Your task to perform on an android device: turn notification dots on Image 0: 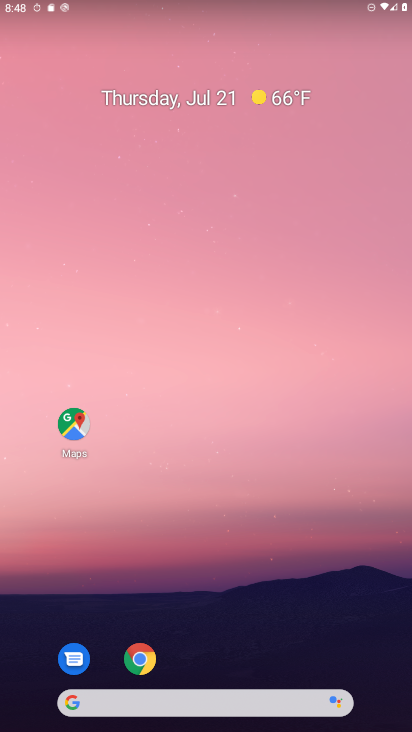
Step 0: drag from (188, 652) to (254, 170)
Your task to perform on an android device: turn notification dots on Image 1: 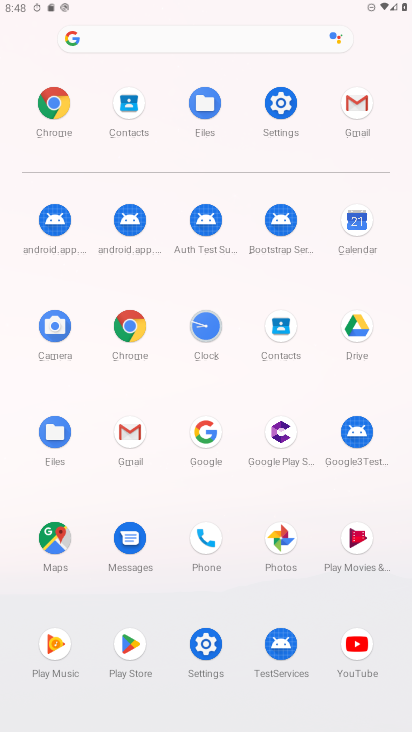
Step 1: click (279, 117)
Your task to perform on an android device: turn notification dots on Image 2: 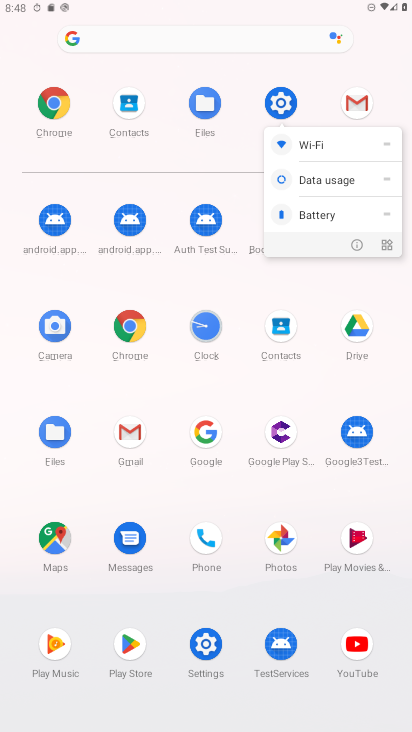
Step 2: click (355, 246)
Your task to perform on an android device: turn notification dots on Image 3: 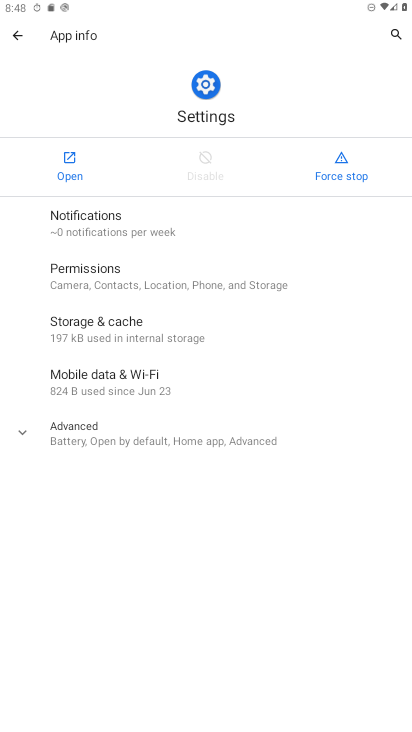
Step 3: click (65, 158)
Your task to perform on an android device: turn notification dots on Image 4: 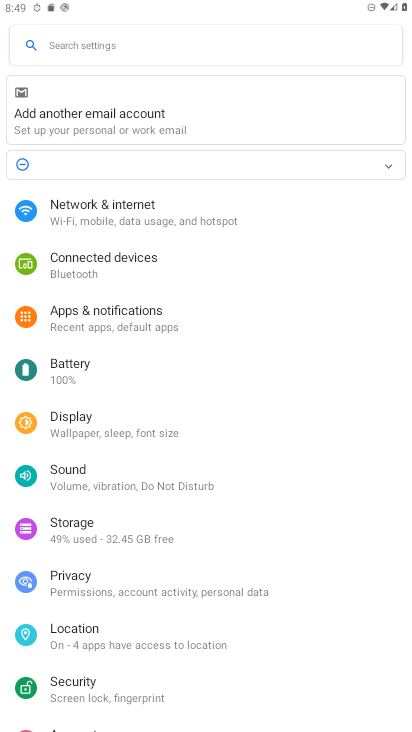
Step 4: click (119, 307)
Your task to perform on an android device: turn notification dots on Image 5: 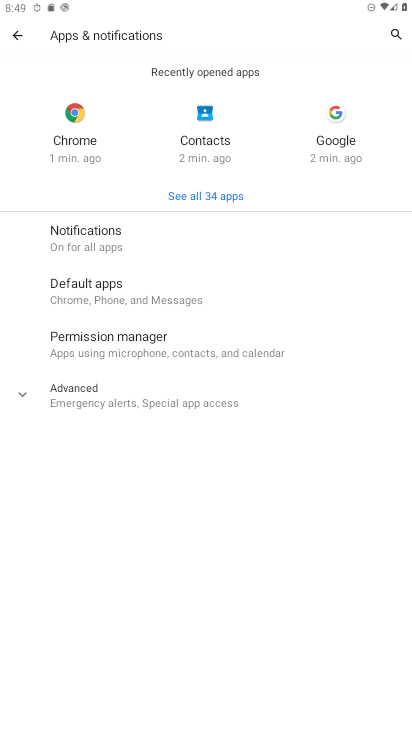
Step 5: click (134, 240)
Your task to perform on an android device: turn notification dots on Image 6: 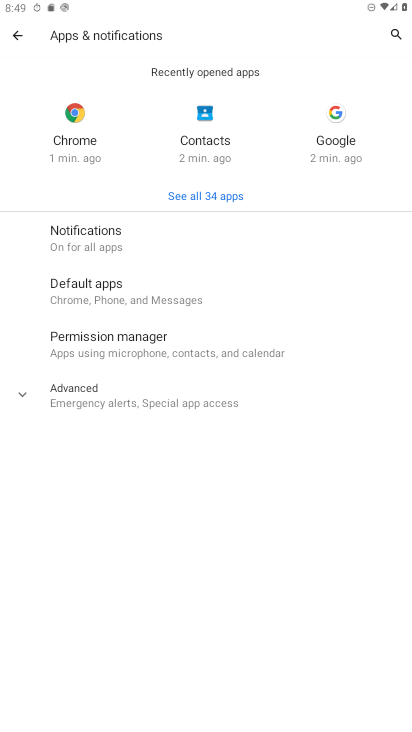
Step 6: click (135, 239)
Your task to perform on an android device: turn notification dots on Image 7: 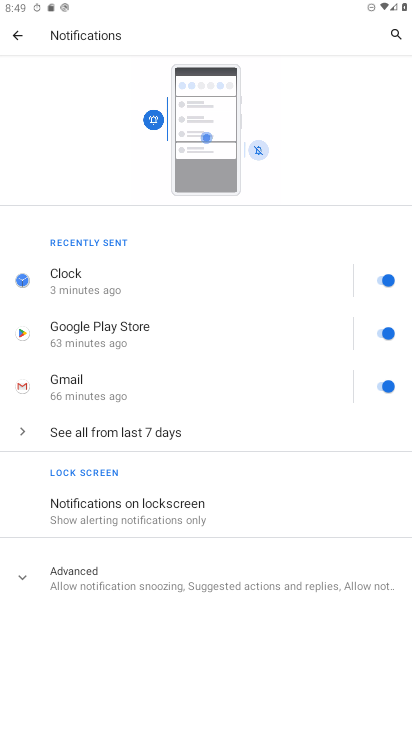
Step 7: click (89, 575)
Your task to perform on an android device: turn notification dots on Image 8: 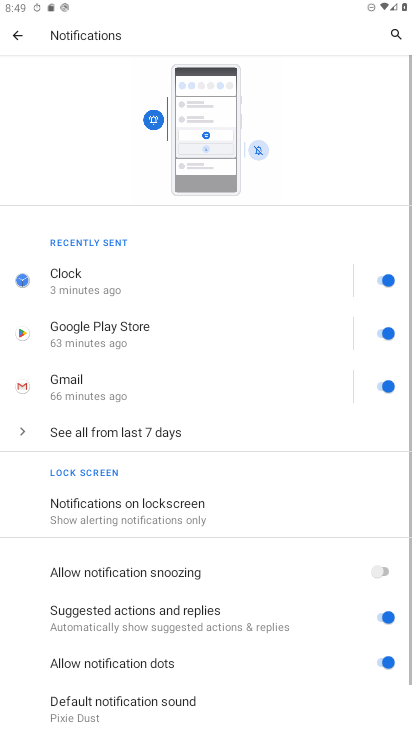
Step 8: task complete